Your task to perform on an android device: Open Youtube and go to the subscriptions tab Image 0: 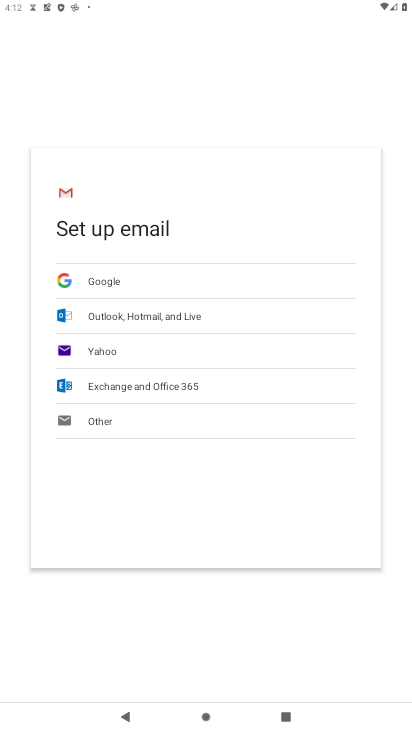
Step 0: press home button
Your task to perform on an android device: Open Youtube and go to the subscriptions tab Image 1: 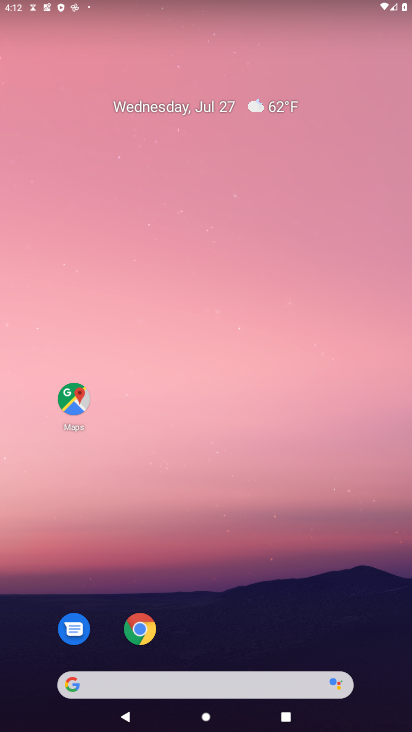
Step 1: drag from (181, 676) to (290, 23)
Your task to perform on an android device: Open Youtube and go to the subscriptions tab Image 2: 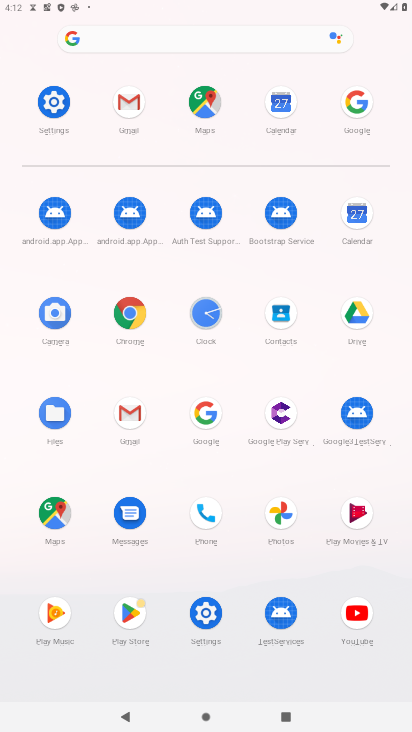
Step 2: click (352, 614)
Your task to perform on an android device: Open Youtube and go to the subscriptions tab Image 3: 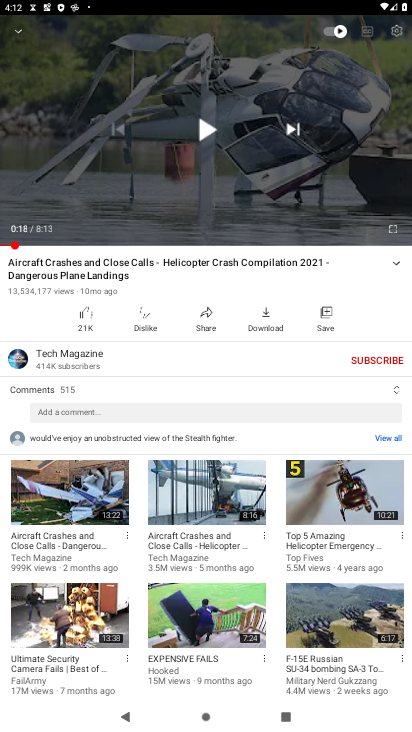
Step 3: press back button
Your task to perform on an android device: Open Youtube and go to the subscriptions tab Image 4: 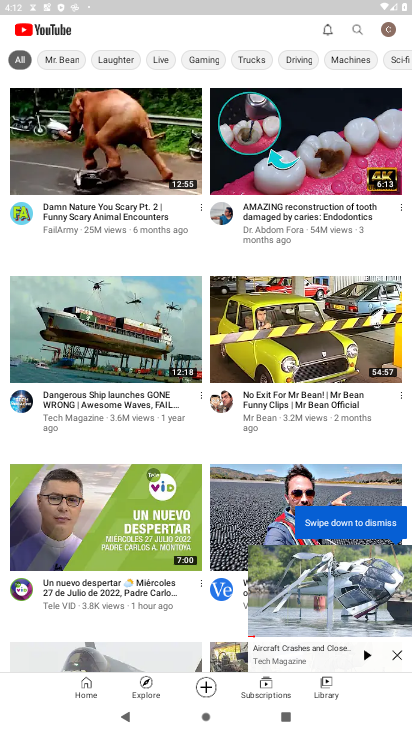
Step 4: press back button
Your task to perform on an android device: Open Youtube and go to the subscriptions tab Image 5: 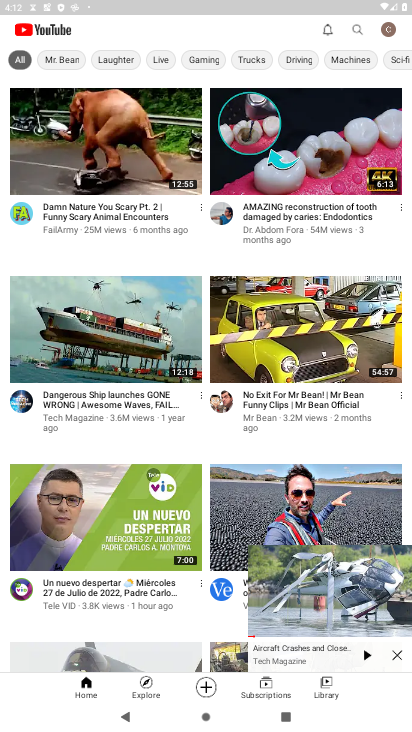
Step 5: click (262, 682)
Your task to perform on an android device: Open Youtube and go to the subscriptions tab Image 6: 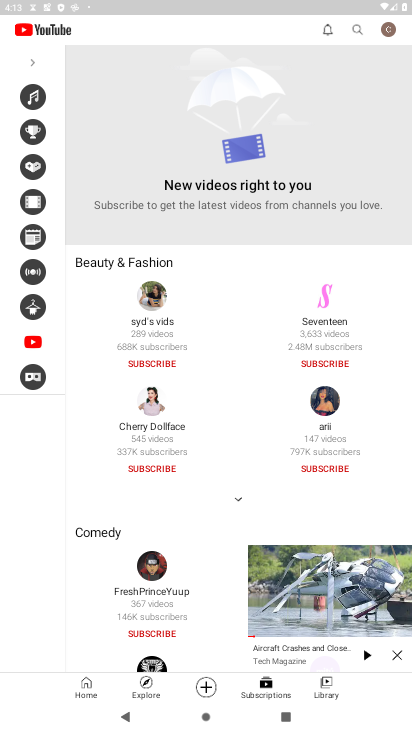
Step 6: task complete